Your task to perform on an android device: stop showing notifications on the lock screen Image 0: 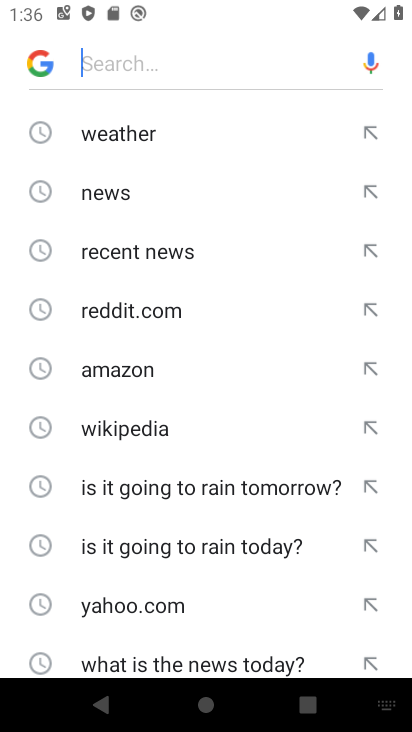
Step 0: press home button
Your task to perform on an android device: stop showing notifications on the lock screen Image 1: 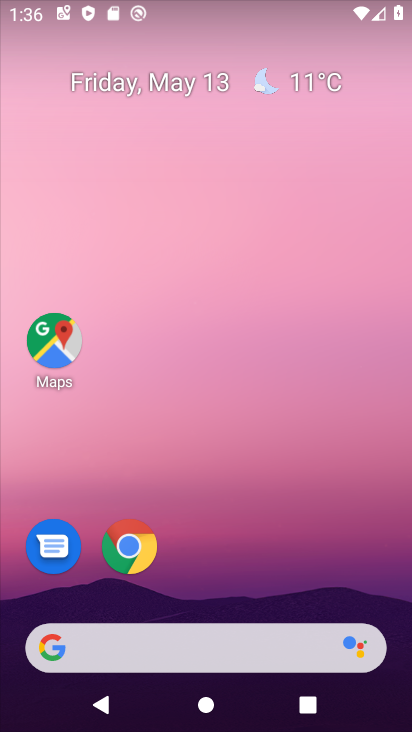
Step 1: drag from (313, 535) to (359, 37)
Your task to perform on an android device: stop showing notifications on the lock screen Image 2: 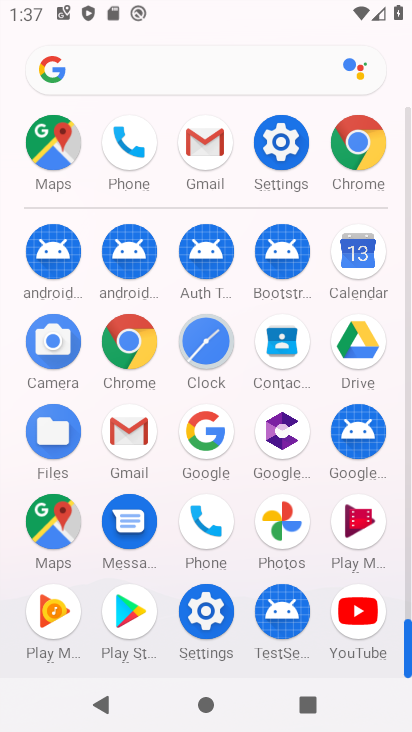
Step 2: click (305, 152)
Your task to perform on an android device: stop showing notifications on the lock screen Image 3: 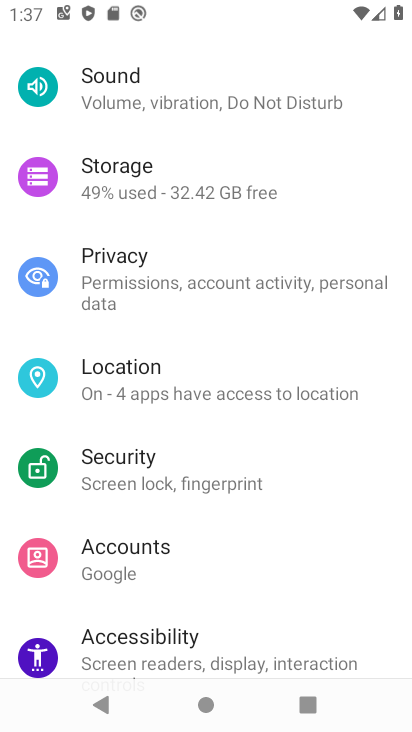
Step 3: drag from (210, 238) to (195, 718)
Your task to perform on an android device: stop showing notifications on the lock screen Image 4: 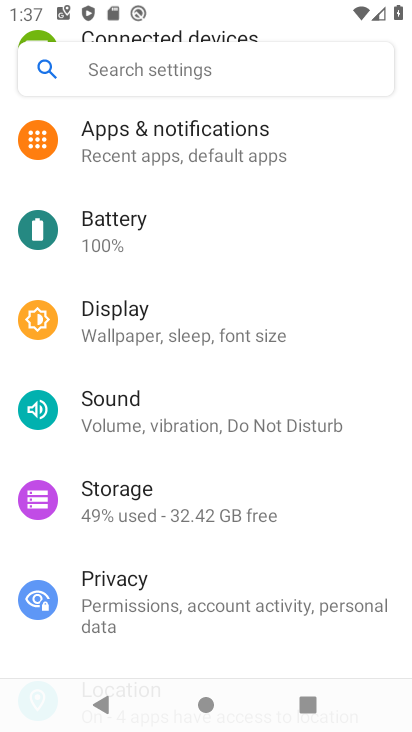
Step 4: drag from (193, 334) to (180, 588)
Your task to perform on an android device: stop showing notifications on the lock screen Image 5: 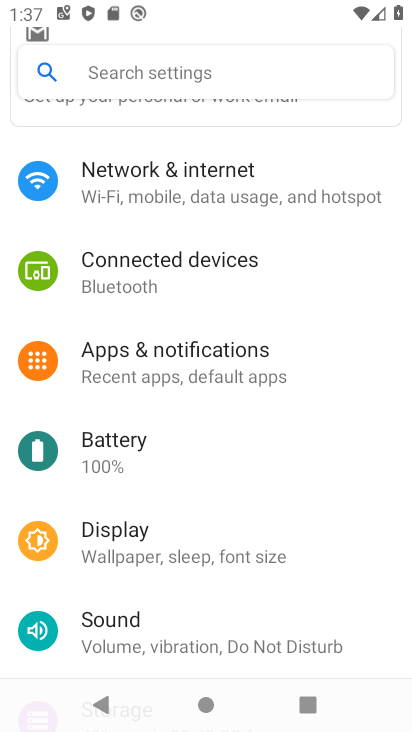
Step 5: click (239, 368)
Your task to perform on an android device: stop showing notifications on the lock screen Image 6: 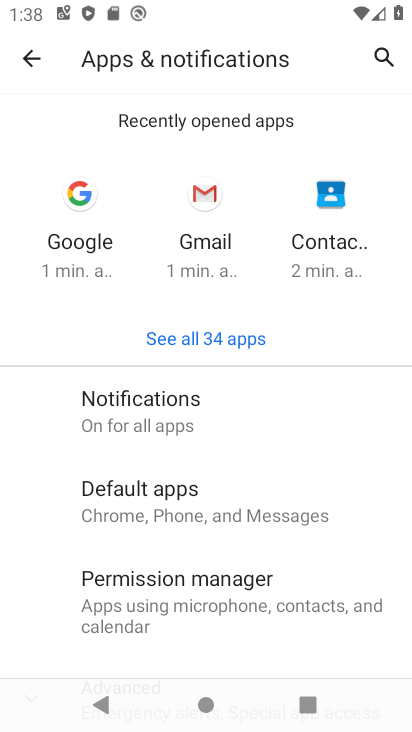
Step 6: click (193, 414)
Your task to perform on an android device: stop showing notifications on the lock screen Image 7: 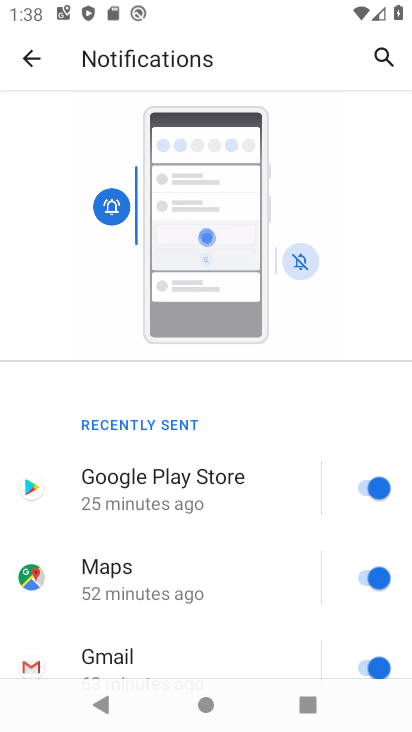
Step 7: drag from (151, 531) to (175, 133)
Your task to perform on an android device: stop showing notifications on the lock screen Image 8: 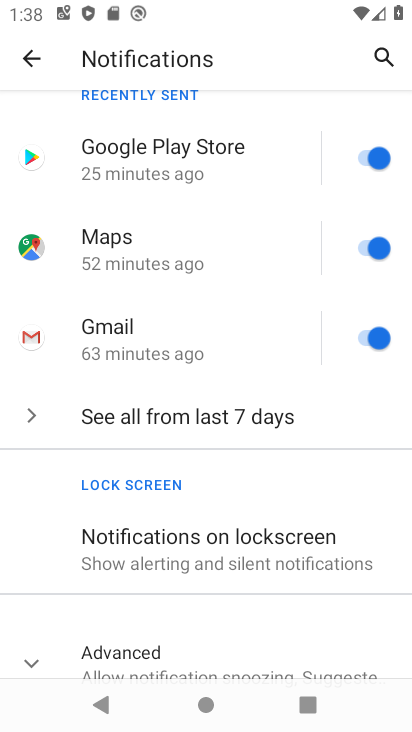
Step 8: click (118, 556)
Your task to perform on an android device: stop showing notifications on the lock screen Image 9: 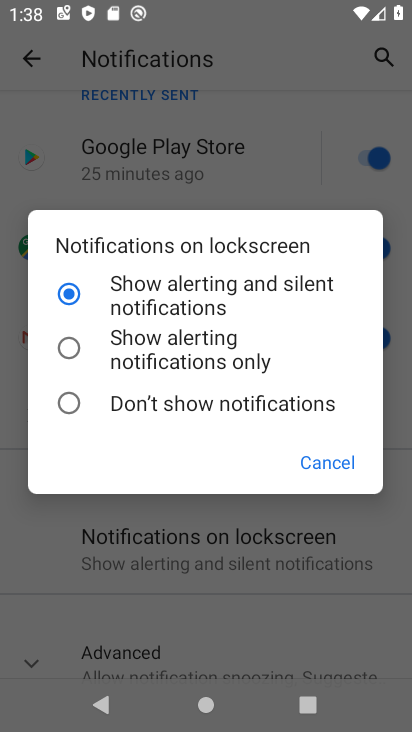
Step 9: click (103, 423)
Your task to perform on an android device: stop showing notifications on the lock screen Image 10: 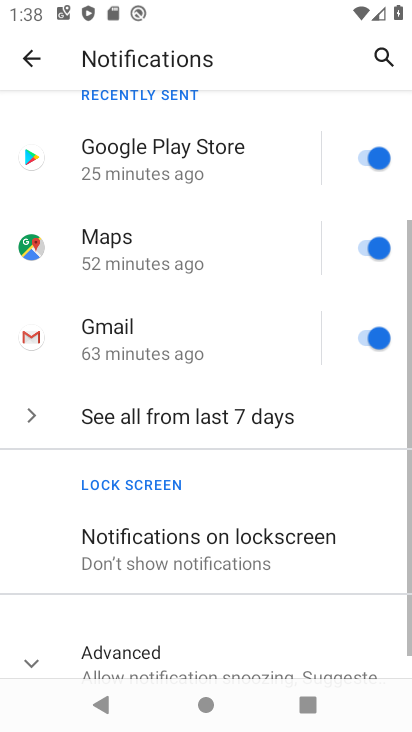
Step 10: task complete